Your task to perform on an android device: Open battery settings Image 0: 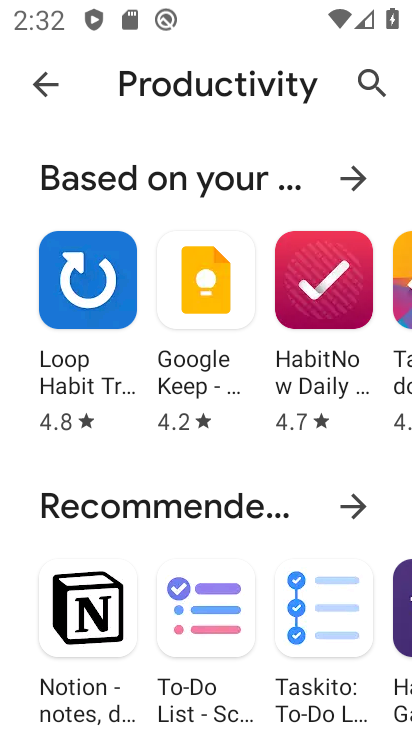
Step 0: press home button
Your task to perform on an android device: Open battery settings Image 1: 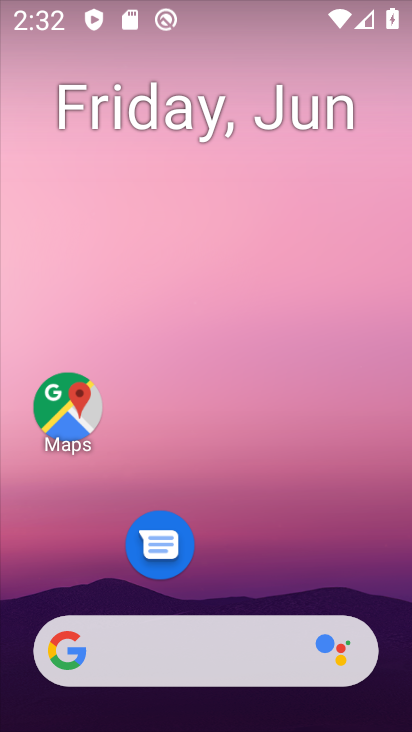
Step 1: drag from (208, 588) to (254, 0)
Your task to perform on an android device: Open battery settings Image 2: 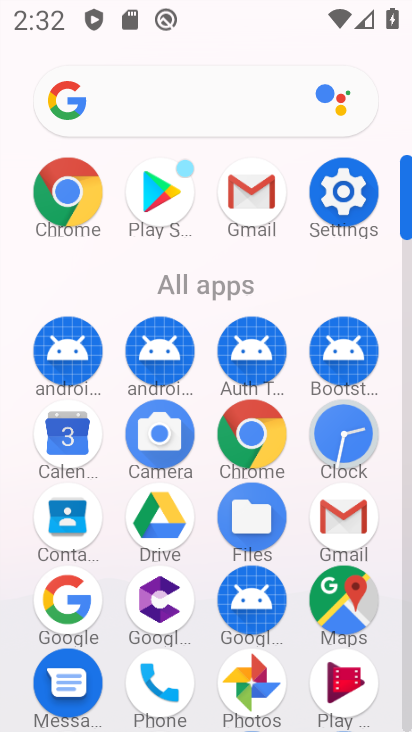
Step 2: drag from (250, 573) to (282, 185)
Your task to perform on an android device: Open battery settings Image 3: 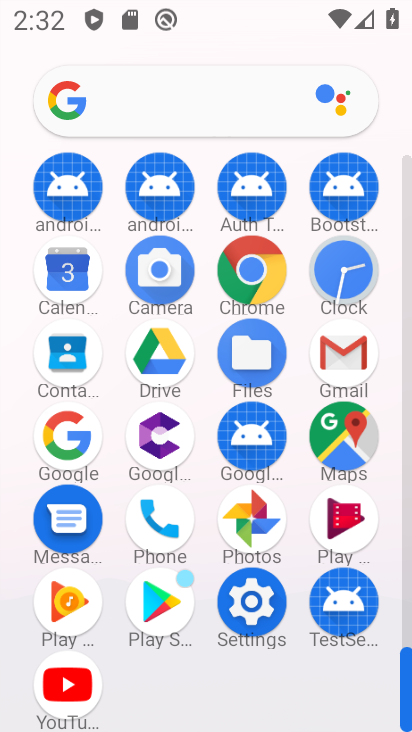
Step 3: click (253, 616)
Your task to perform on an android device: Open battery settings Image 4: 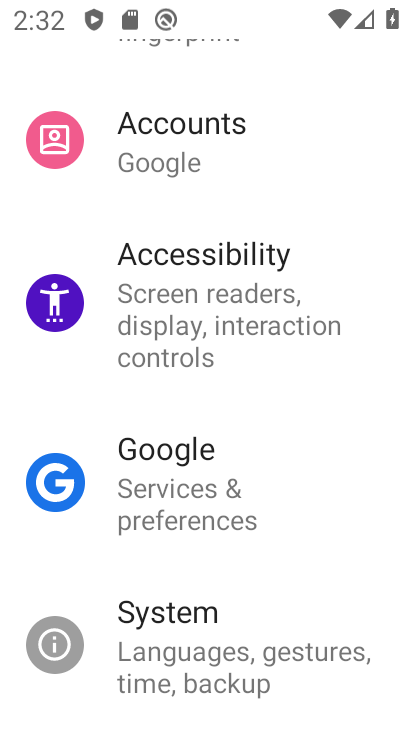
Step 4: drag from (196, 267) to (205, 546)
Your task to perform on an android device: Open battery settings Image 5: 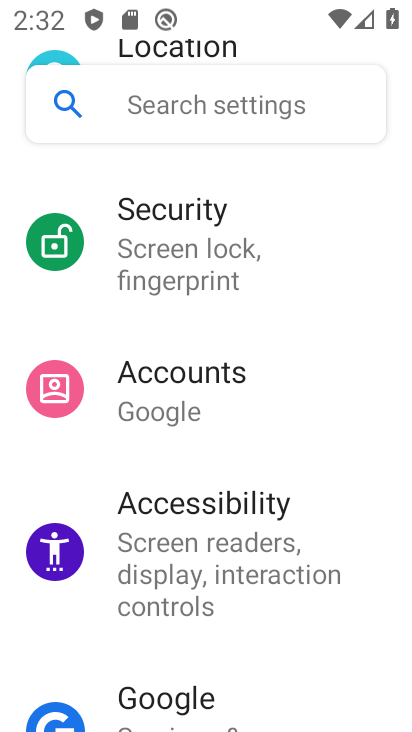
Step 5: drag from (221, 237) to (207, 600)
Your task to perform on an android device: Open battery settings Image 6: 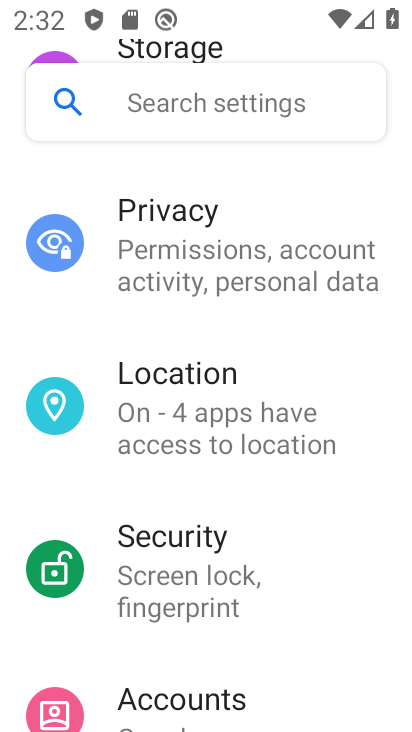
Step 6: drag from (225, 307) to (232, 693)
Your task to perform on an android device: Open battery settings Image 7: 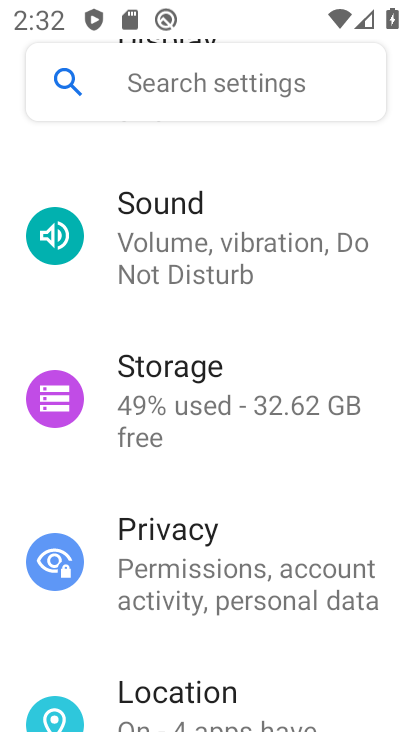
Step 7: drag from (245, 327) to (257, 630)
Your task to perform on an android device: Open battery settings Image 8: 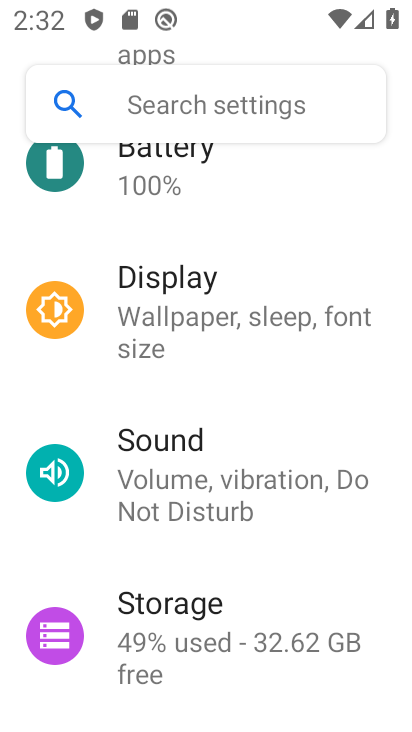
Step 8: click (165, 169)
Your task to perform on an android device: Open battery settings Image 9: 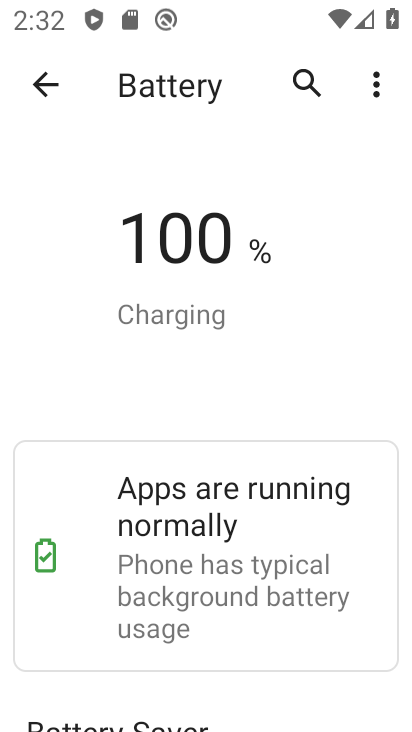
Step 9: task complete